Your task to perform on an android device: snooze an email in the gmail app Image 0: 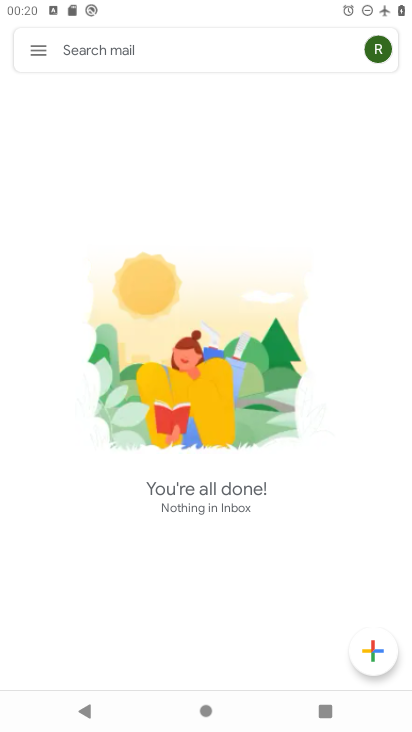
Step 0: press home button
Your task to perform on an android device: snooze an email in the gmail app Image 1: 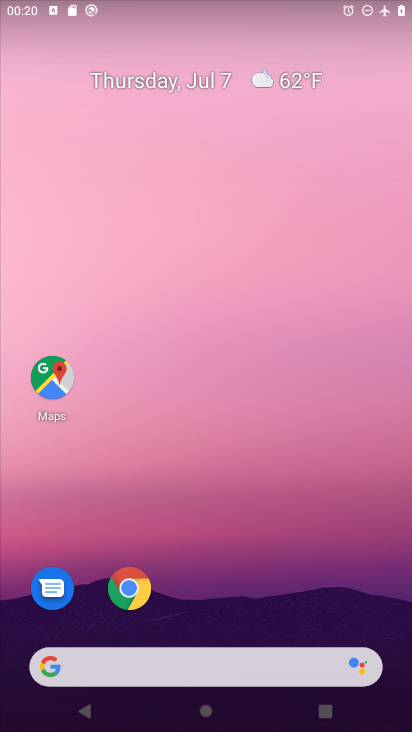
Step 1: drag from (354, 615) to (332, 117)
Your task to perform on an android device: snooze an email in the gmail app Image 2: 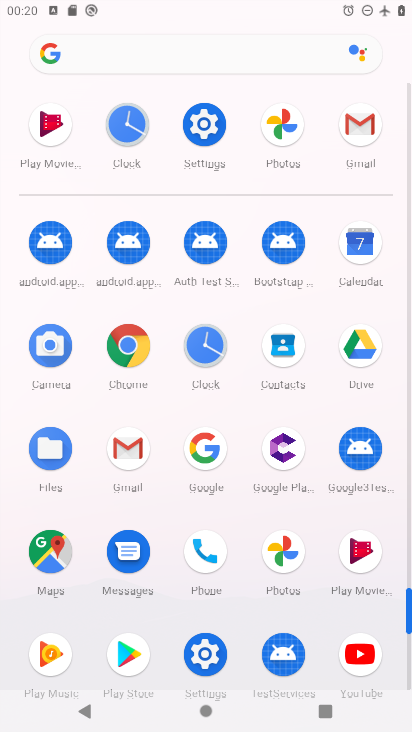
Step 2: click (128, 448)
Your task to perform on an android device: snooze an email in the gmail app Image 3: 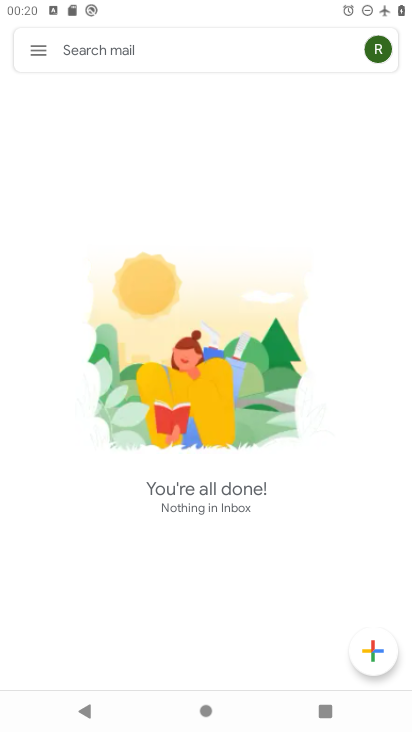
Step 3: click (34, 49)
Your task to perform on an android device: snooze an email in the gmail app Image 4: 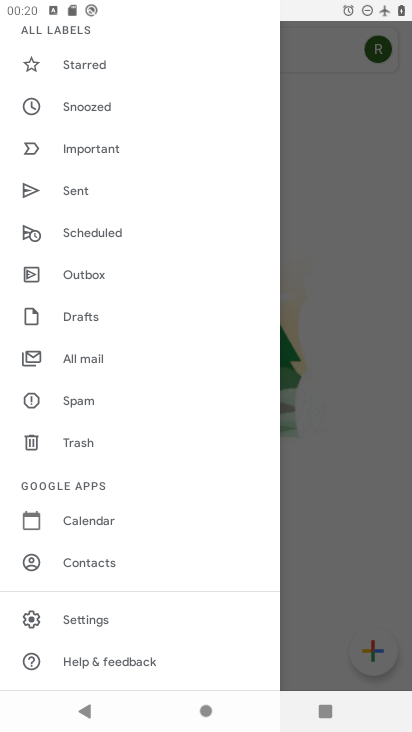
Step 4: click (80, 358)
Your task to perform on an android device: snooze an email in the gmail app Image 5: 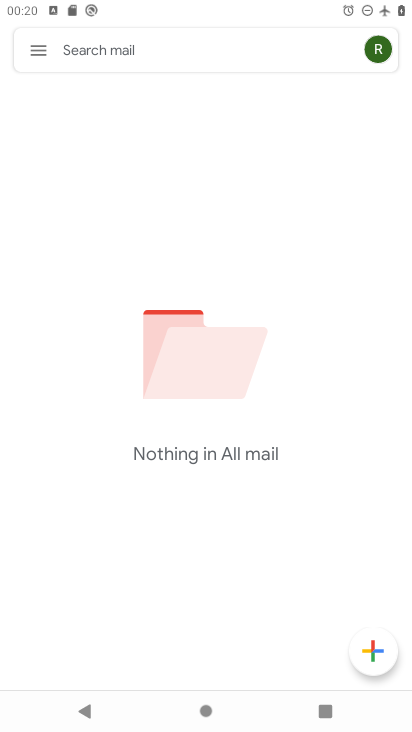
Step 5: task complete